Your task to perform on an android device: see sites visited before in the chrome app Image 0: 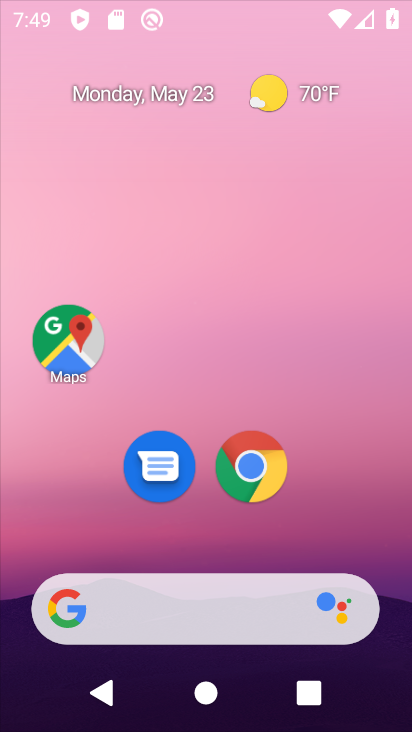
Step 0: press home button
Your task to perform on an android device: see sites visited before in the chrome app Image 1: 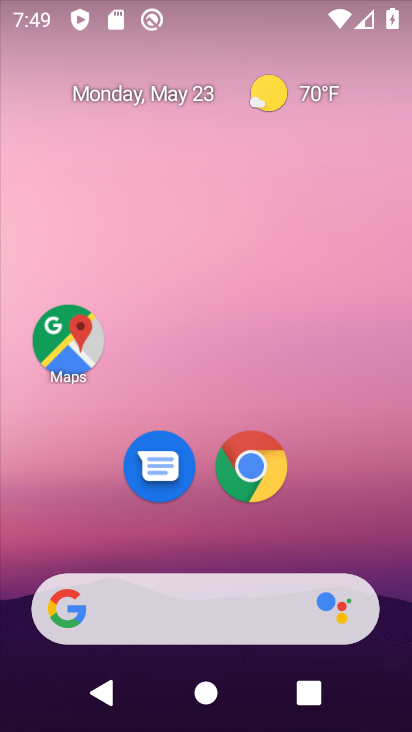
Step 1: drag from (219, 583) to (286, 87)
Your task to perform on an android device: see sites visited before in the chrome app Image 2: 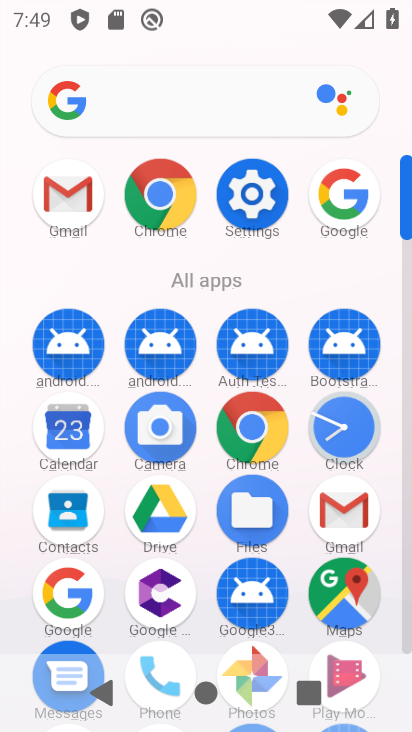
Step 2: click (169, 211)
Your task to perform on an android device: see sites visited before in the chrome app Image 3: 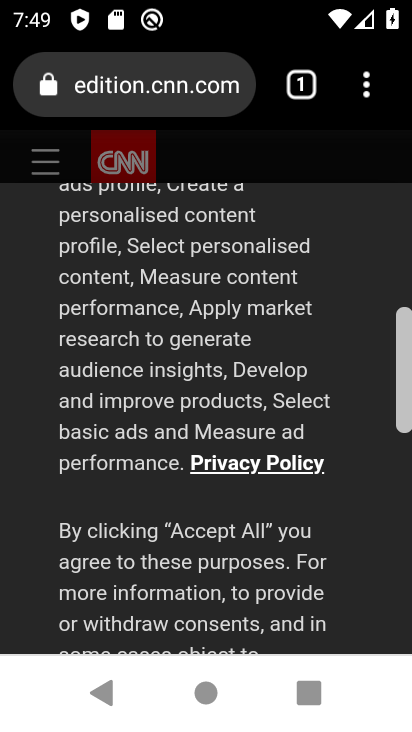
Step 3: click (377, 81)
Your task to perform on an android device: see sites visited before in the chrome app Image 4: 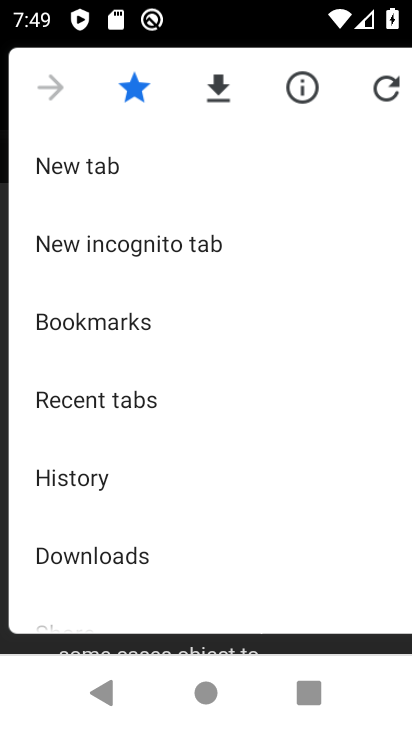
Step 4: click (85, 483)
Your task to perform on an android device: see sites visited before in the chrome app Image 5: 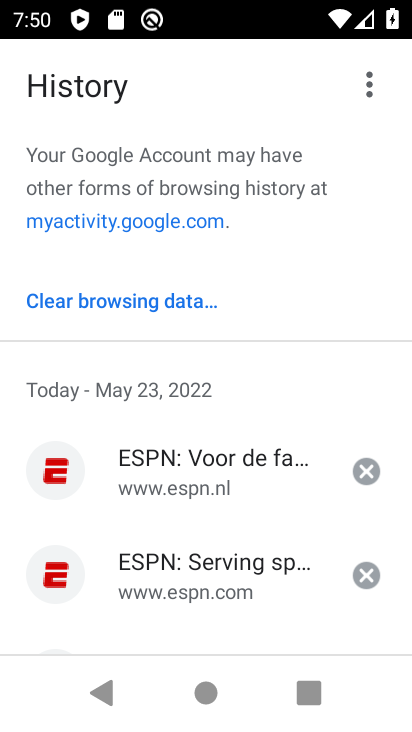
Step 5: task complete